Your task to perform on an android device: Open Chrome and go to settings Image 0: 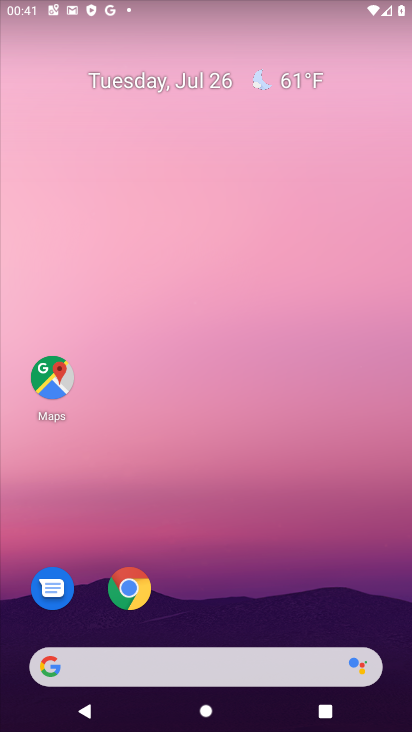
Step 0: press home button
Your task to perform on an android device: Open Chrome and go to settings Image 1: 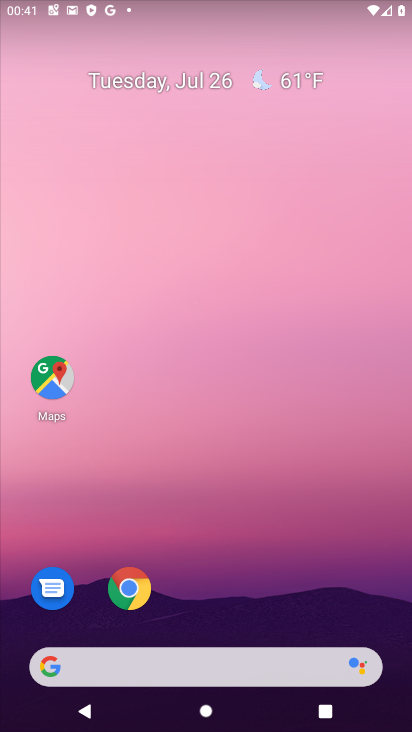
Step 1: click (127, 586)
Your task to perform on an android device: Open Chrome and go to settings Image 2: 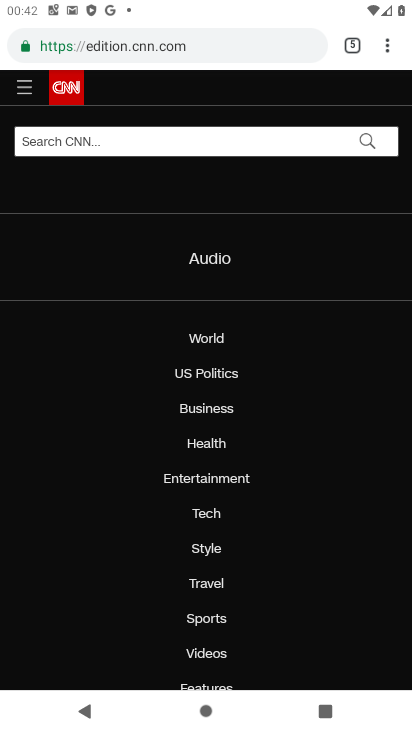
Step 2: click (388, 46)
Your task to perform on an android device: Open Chrome and go to settings Image 3: 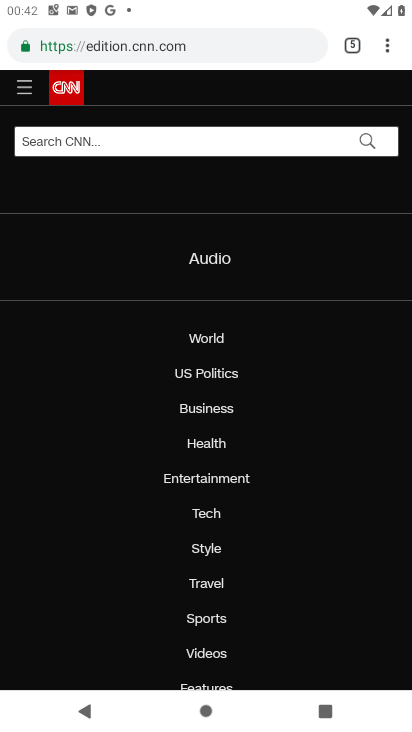
Step 3: click (387, 40)
Your task to perform on an android device: Open Chrome and go to settings Image 4: 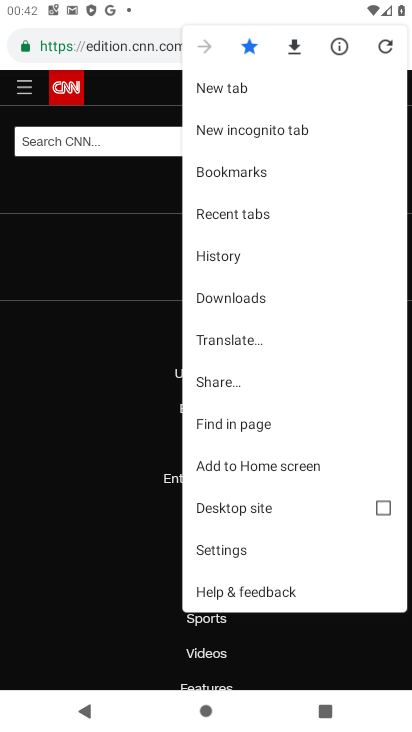
Step 4: click (252, 550)
Your task to perform on an android device: Open Chrome and go to settings Image 5: 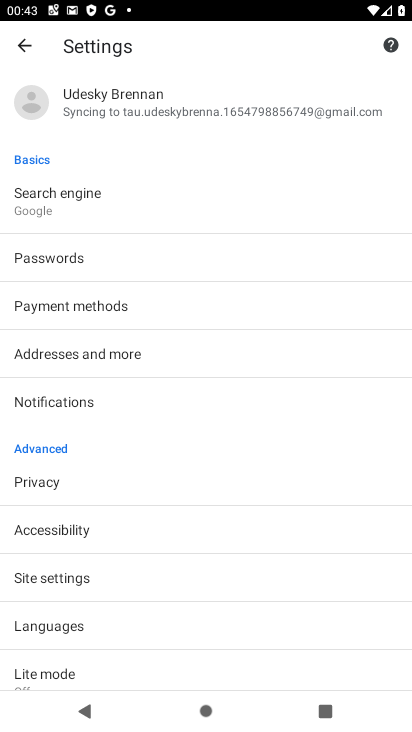
Step 5: task complete